Your task to perform on an android device: turn off location history Image 0: 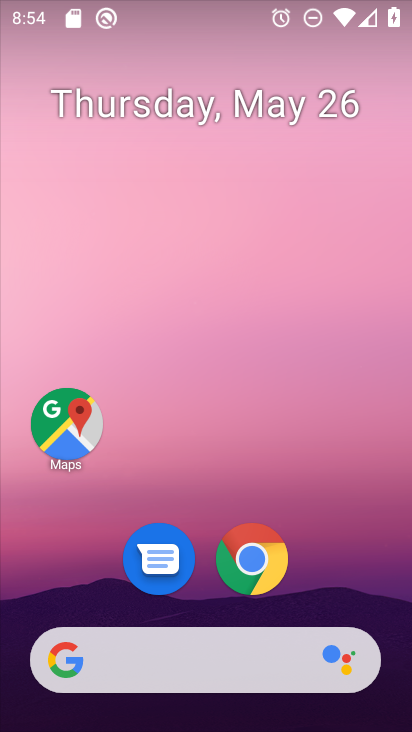
Step 0: drag from (340, 578) to (396, 85)
Your task to perform on an android device: turn off location history Image 1: 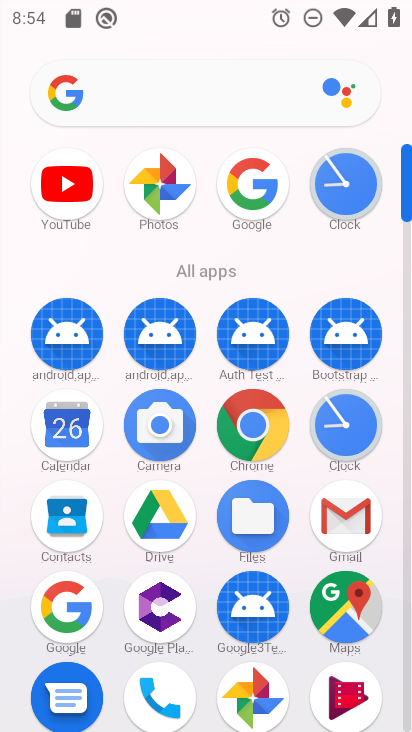
Step 1: drag from (197, 477) to (226, 135)
Your task to perform on an android device: turn off location history Image 2: 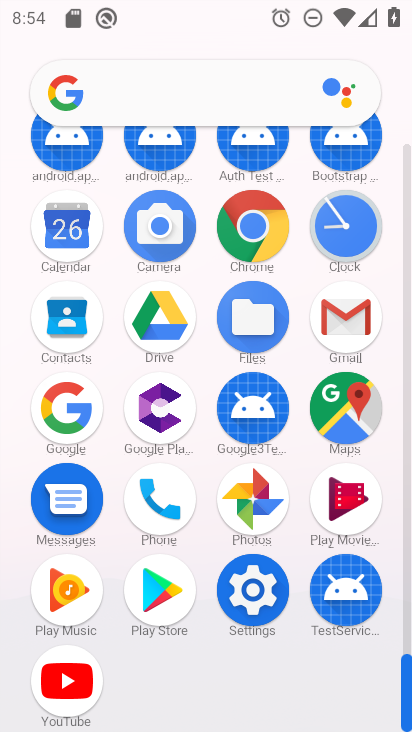
Step 2: click (265, 581)
Your task to perform on an android device: turn off location history Image 3: 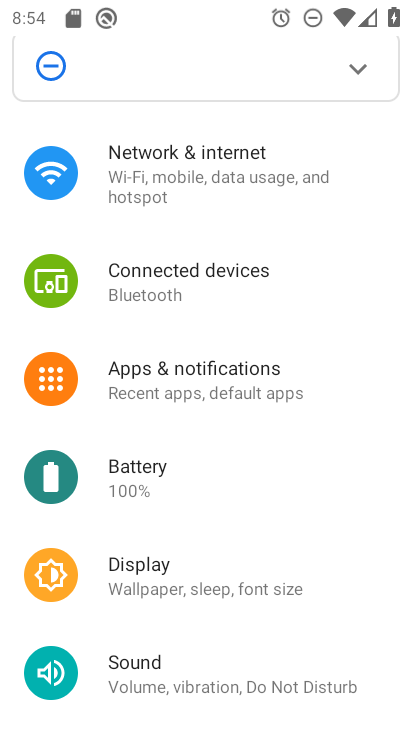
Step 3: drag from (265, 617) to (285, 166)
Your task to perform on an android device: turn off location history Image 4: 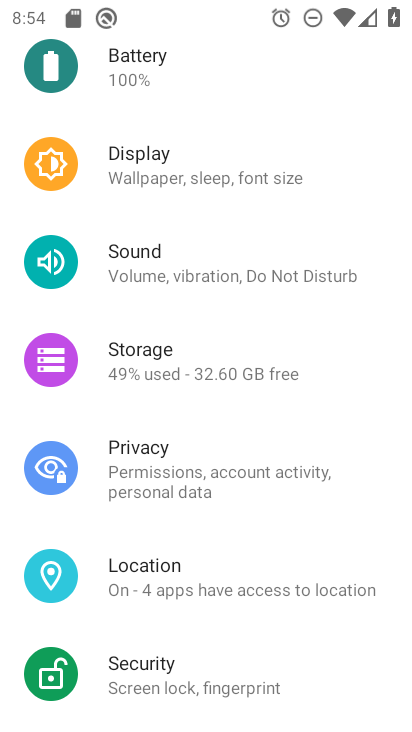
Step 4: click (159, 580)
Your task to perform on an android device: turn off location history Image 5: 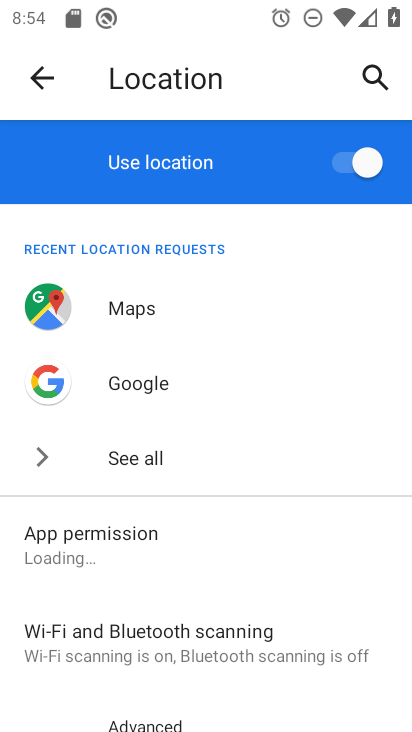
Step 5: drag from (187, 617) to (256, 303)
Your task to perform on an android device: turn off location history Image 6: 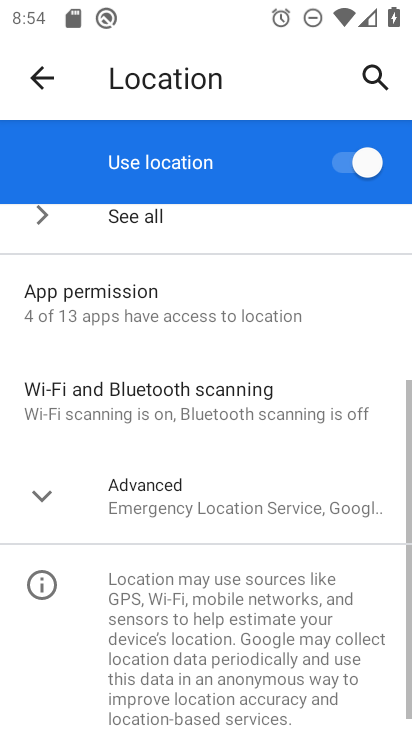
Step 6: click (109, 501)
Your task to perform on an android device: turn off location history Image 7: 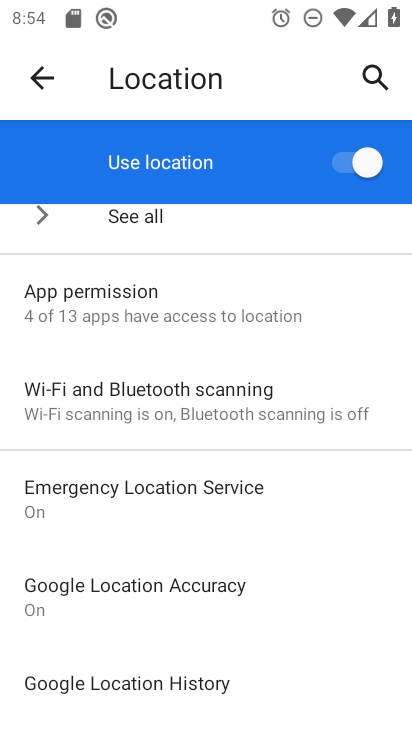
Step 7: click (188, 698)
Your task to perform on an android device: turn off location history Image 8: 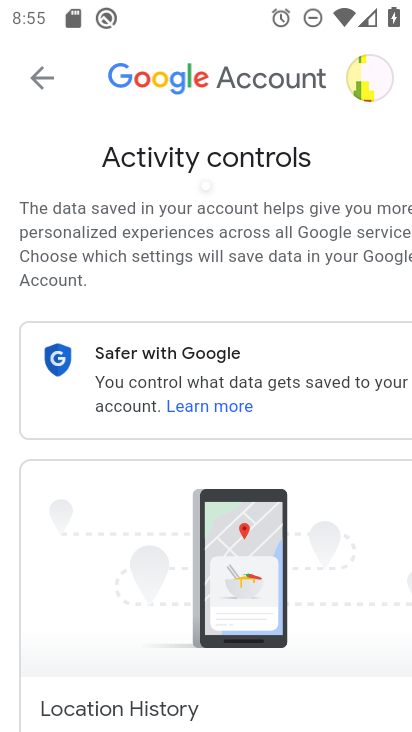
Step 8: drag from (278, 600) to (271, 48)
Your task to perform on an android device: turn off location history Image 9: 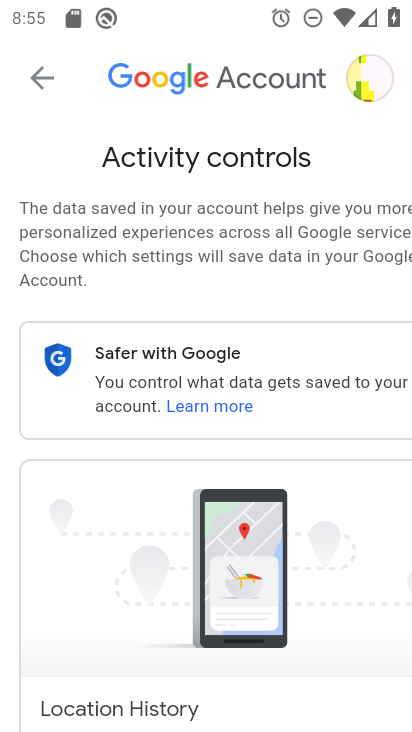
Step 9: drag from (283, 697) to (300, 214)
Your task to perform on an android device: turn off location history Image 10: 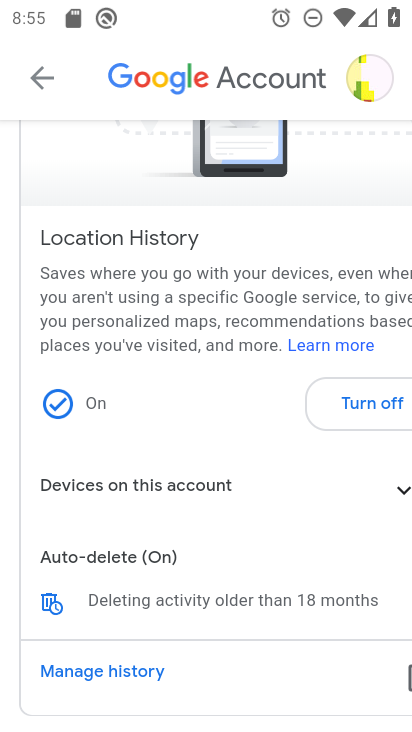
Step 10: click (360, 410)
Your task to perform on an android device: turn off location history Image 11: 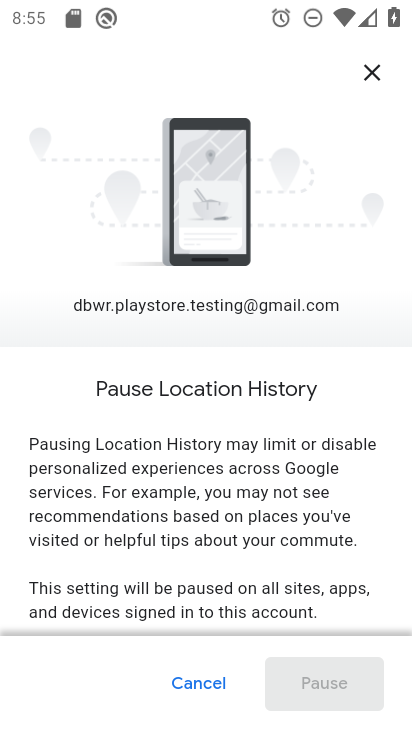
Step 11: drag from (341, 600) to (382, 126)
Your task to perform on an android device: turn off location history Image 12: 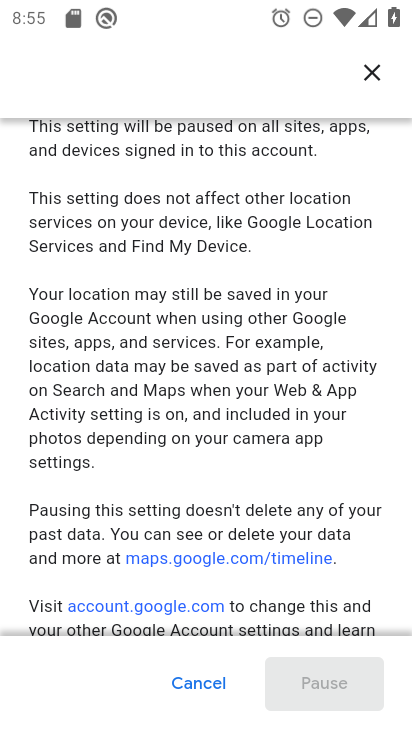
Step 12: drag from (305, 584) to (301, 153)
Your task to perform on an android device: turn off location history Image 13: 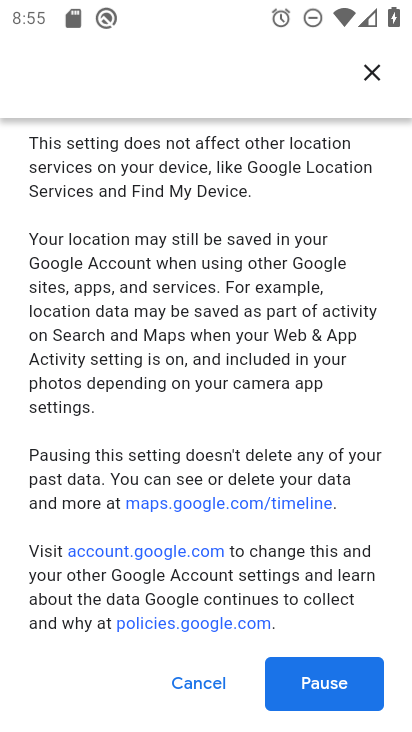
Step 13: click (312, 685)
Your task to perform on an android device: turn off location history Image 14: 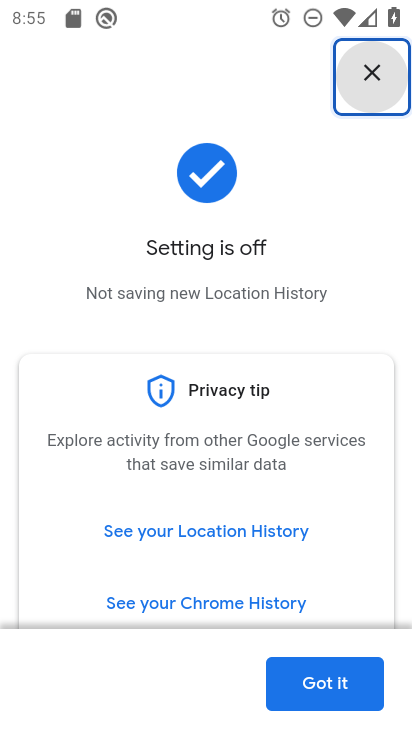
Step 14: click (331, 697)
Your task to perform on an android device: turn off location history Image 15: 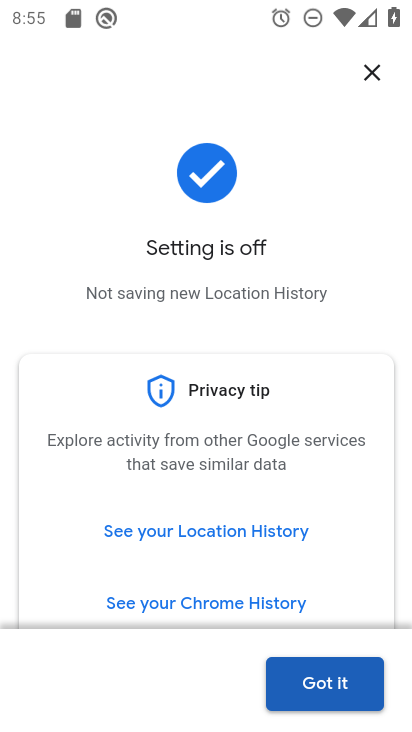
Step 15: click (349, 677)
Your task to perform on an android device: turn off location history Image 16: 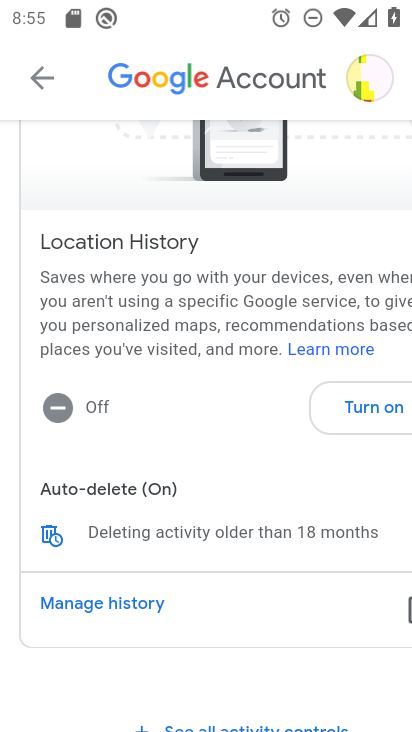
Step 16: task complete